Your task to perform on an android device: Open Google Chrome and open the bookmarks view Image 0: 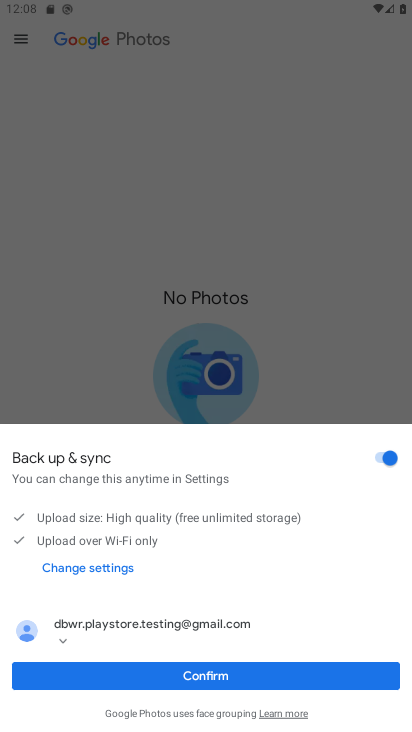
Step 0: press home button
Your task to perform on an android device: Open Google Chrome and open the bookmarks view Image 1: 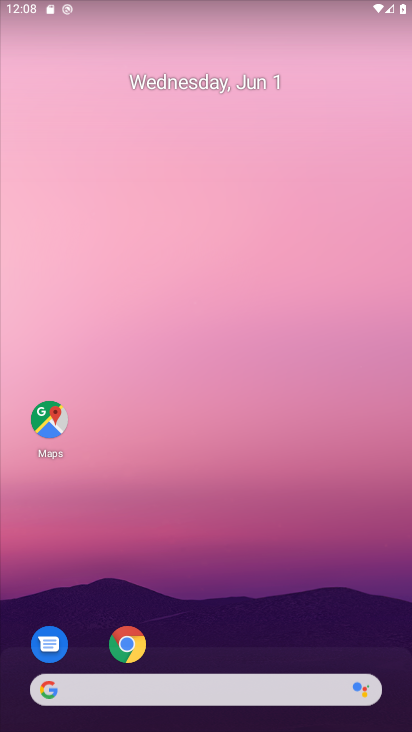
Step 1: click (116, 644)
Your task to perform on an android device: Open Google Chrome and open the bookmarks view Image 2: 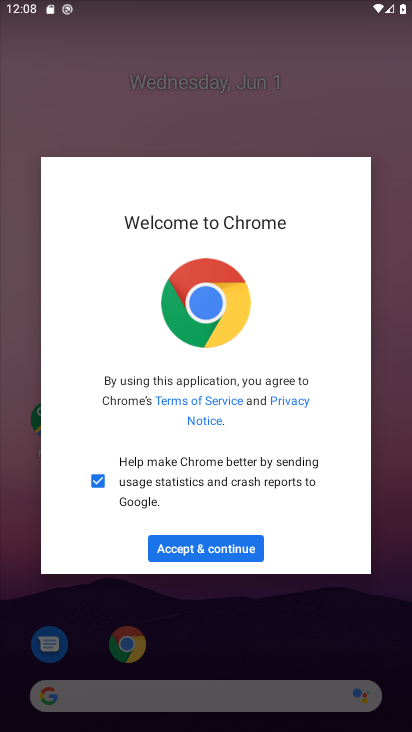
Step 2: click (234, 549)
Your task to perform on an android device: Open Google Chrome and open the bookmarks view Image 3: 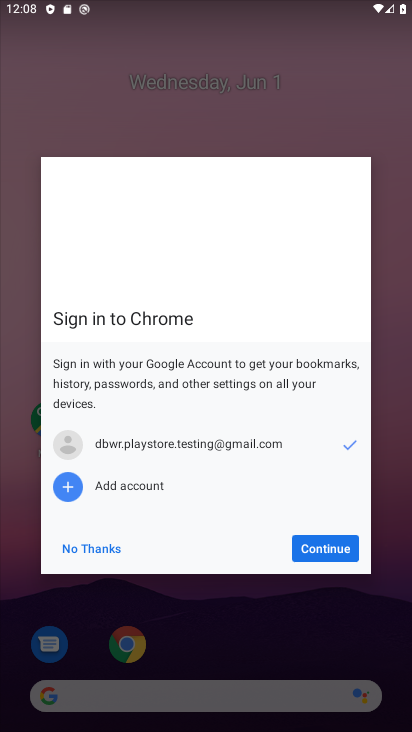
Step 3: click (339, 548)
Your task to perform on an android device: Open Google Chrome and open the bookmarks view Image 4: 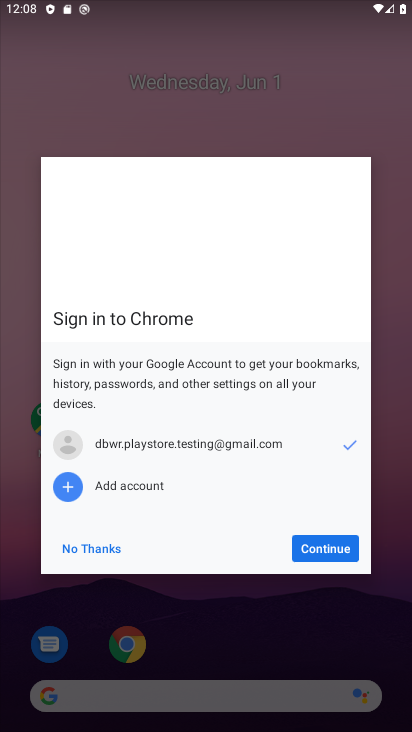
Step 4: click (339, 548)
Your task to perform on an android device: Open Google Chrome and open the bookmarks view Image 5: 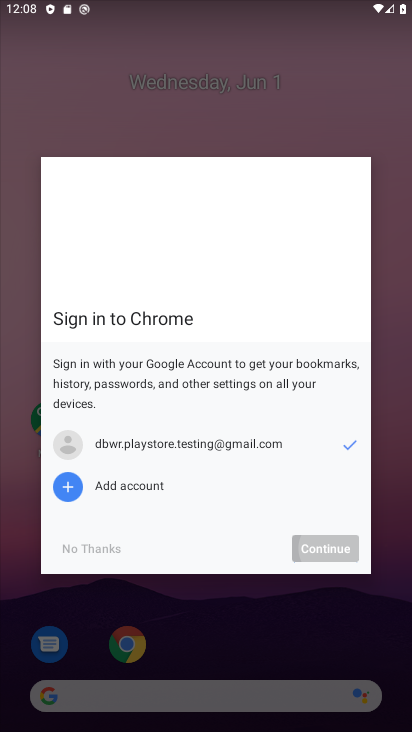
Step 5: click (339, 548)
Your task to perform on an android device: Open Google Chrome and open the bookmarks view Image 6: 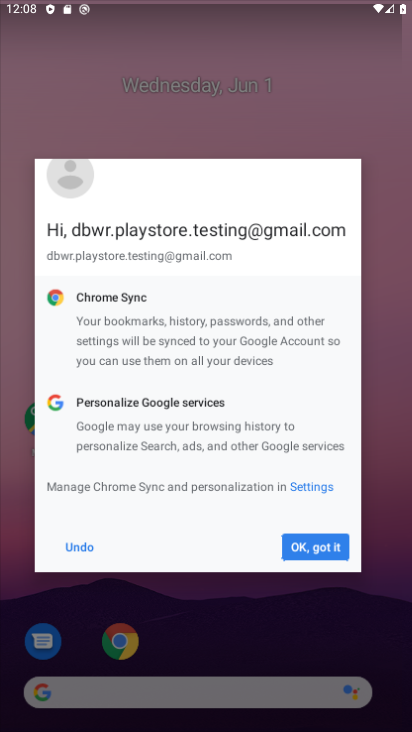
Step 6: click (339, 548)
Your task to perform on an android device: Open Google Chrome and open the bookmarks view Image 7: 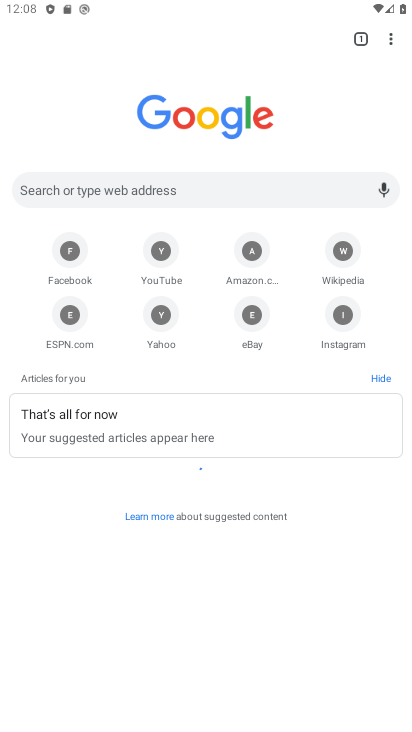
Step 7: task complete